Your task to perform on an android device: Go to wifi settings Image 0: 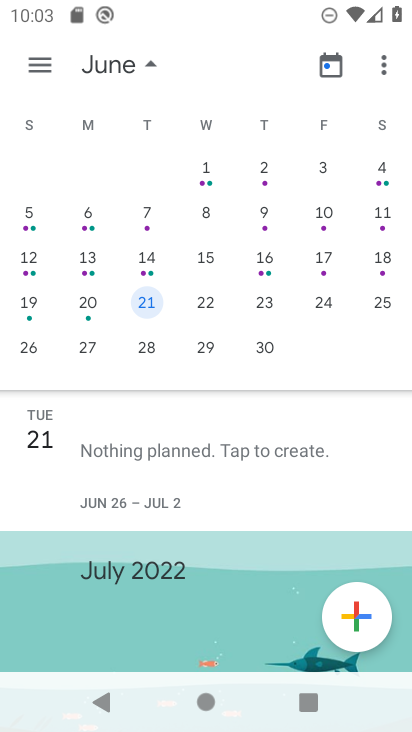
Step 0: press home button
Your task to perform on an android device: Go to wifi settings Image 1: 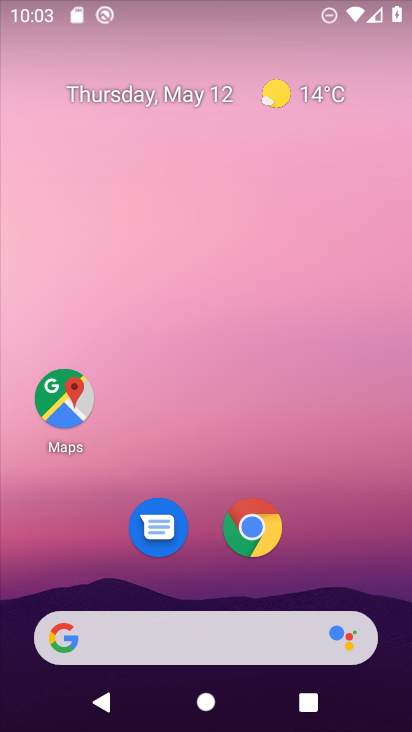
Step 1: drag from (304, 538) to (244, 153)
Your task to perform on an android device: Go to wifi settings Image 2: 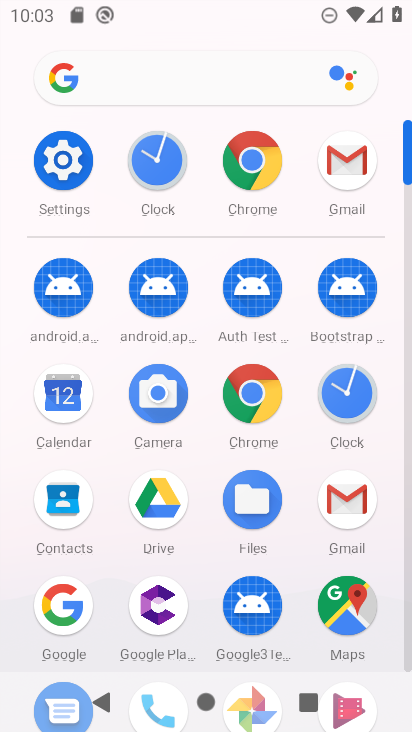
Step 2: click (71, 160)
Your task to perform on an android device: Go to wifi settings Image 3: 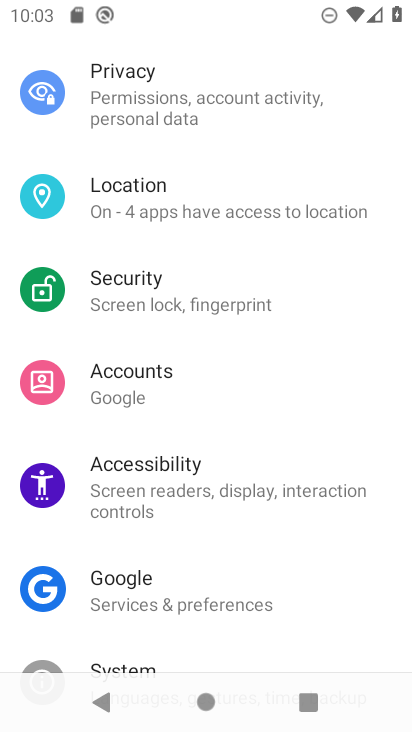
Step 3: drag from (169, 164) to (165, 480)
Your task to perform on an android device: Go to wifi settings Image 4: 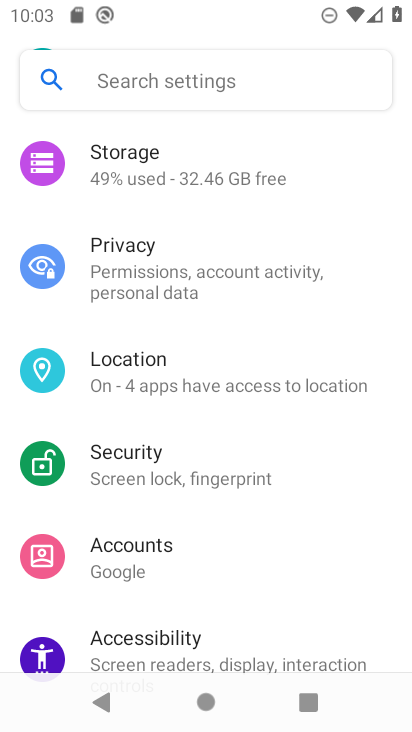
Step 4: drag from (221, 312) to (233, 724)
Your task to perform on an android device: Go to wifi settings Image 5: 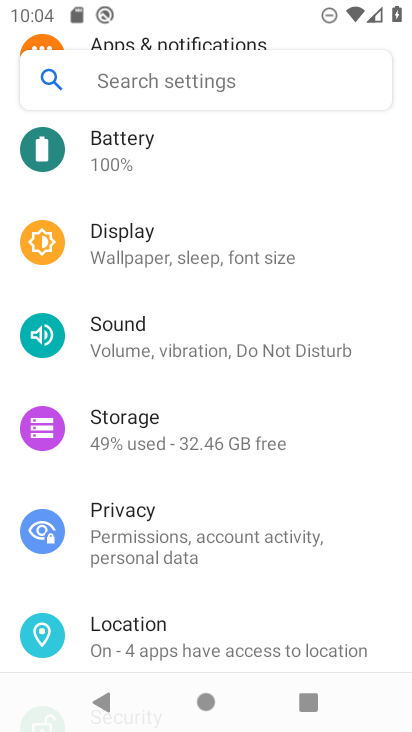
Step 5: drag from (197, 260) to (238, 730)
Your task to perform on an android device: Go to wifi settings Image 6: 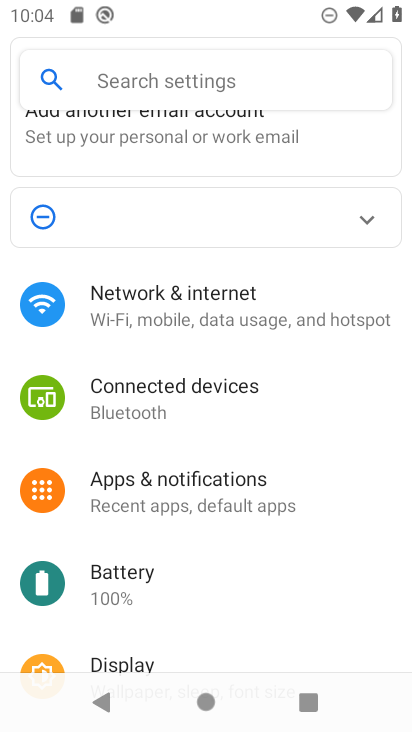
Step 6: click (278, 331)
Your task to perform on an android device: Go to wifi settings Image 7: 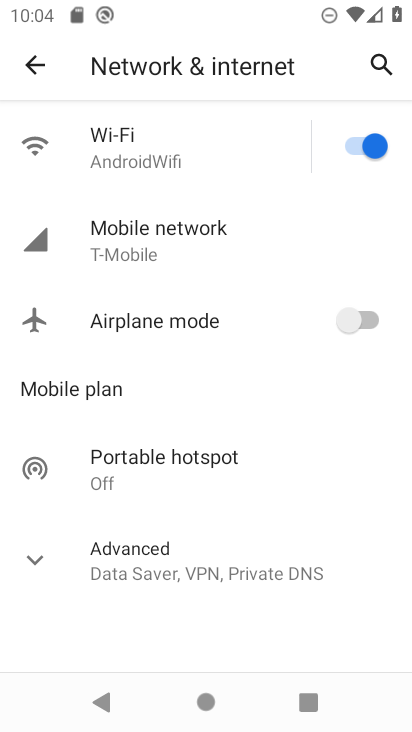
Step 7: click (172, 132)
Your task to perform on an android device: Go to wifi settings Image 8: 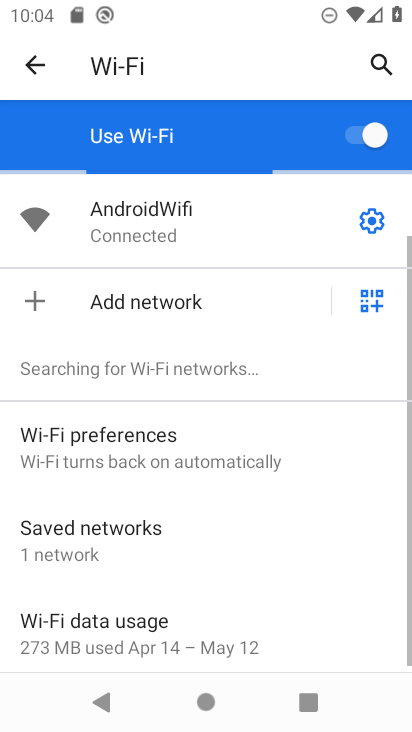
Step 8: task complete